Your task to perform on an android device: change the clock display to analog Image 0: 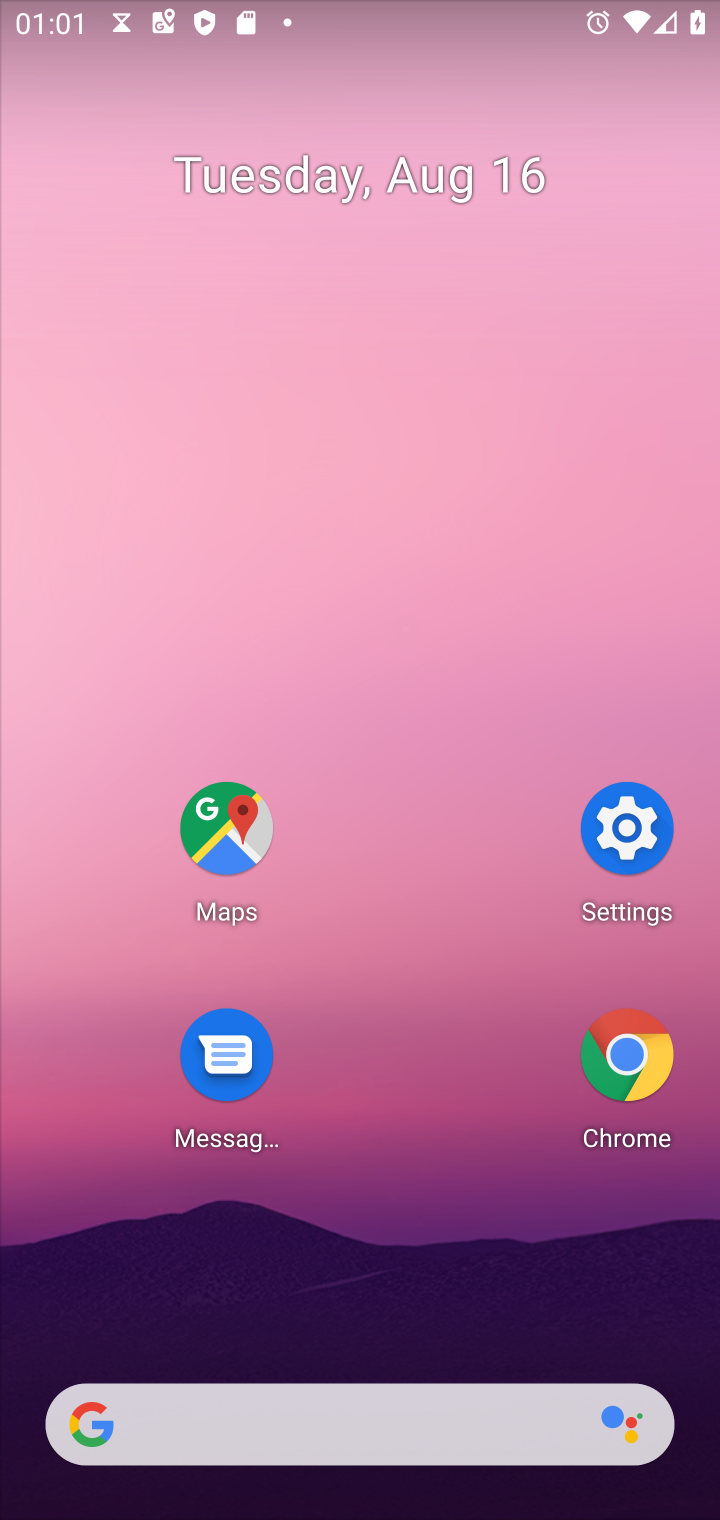
Step 0: press home button
Your task to perform on an android device: change the clock display to analog Image 1: 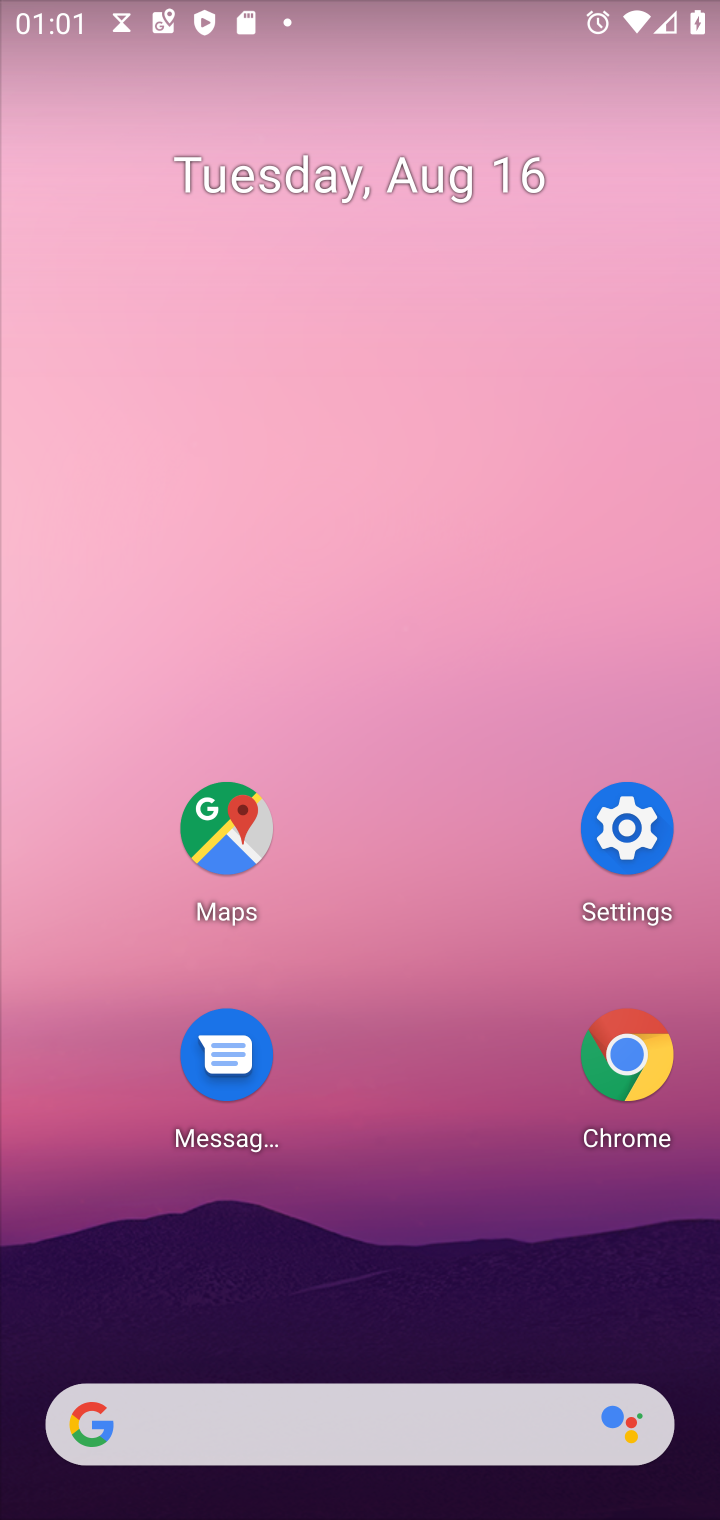
Step 1: drag from (499, 930) to (596, 84)
Your task to perform on an android device: change the clock display to analog Image 2: 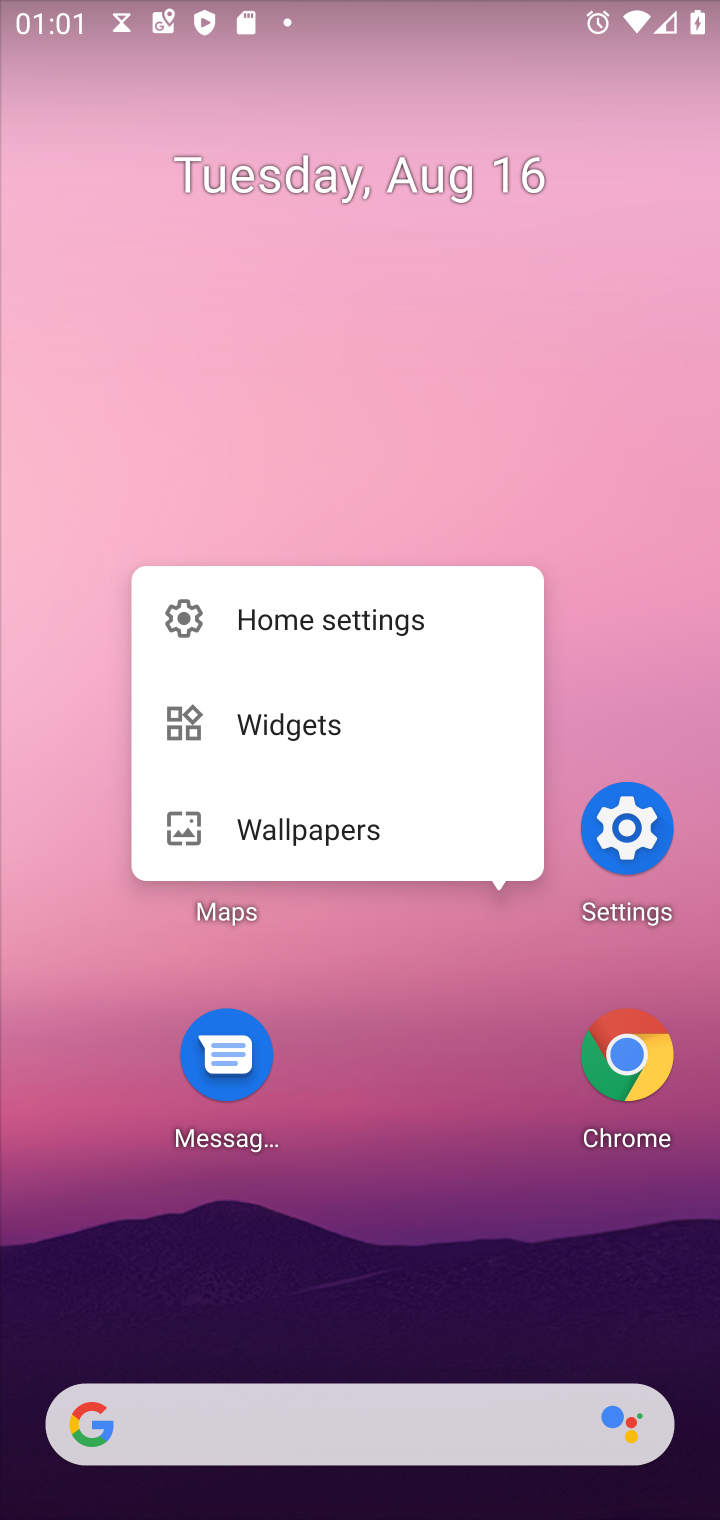
Step 2: drag from (452, 974) to (540, 268)
Your task to perform on an android device: change the clock display to analog Image 3: 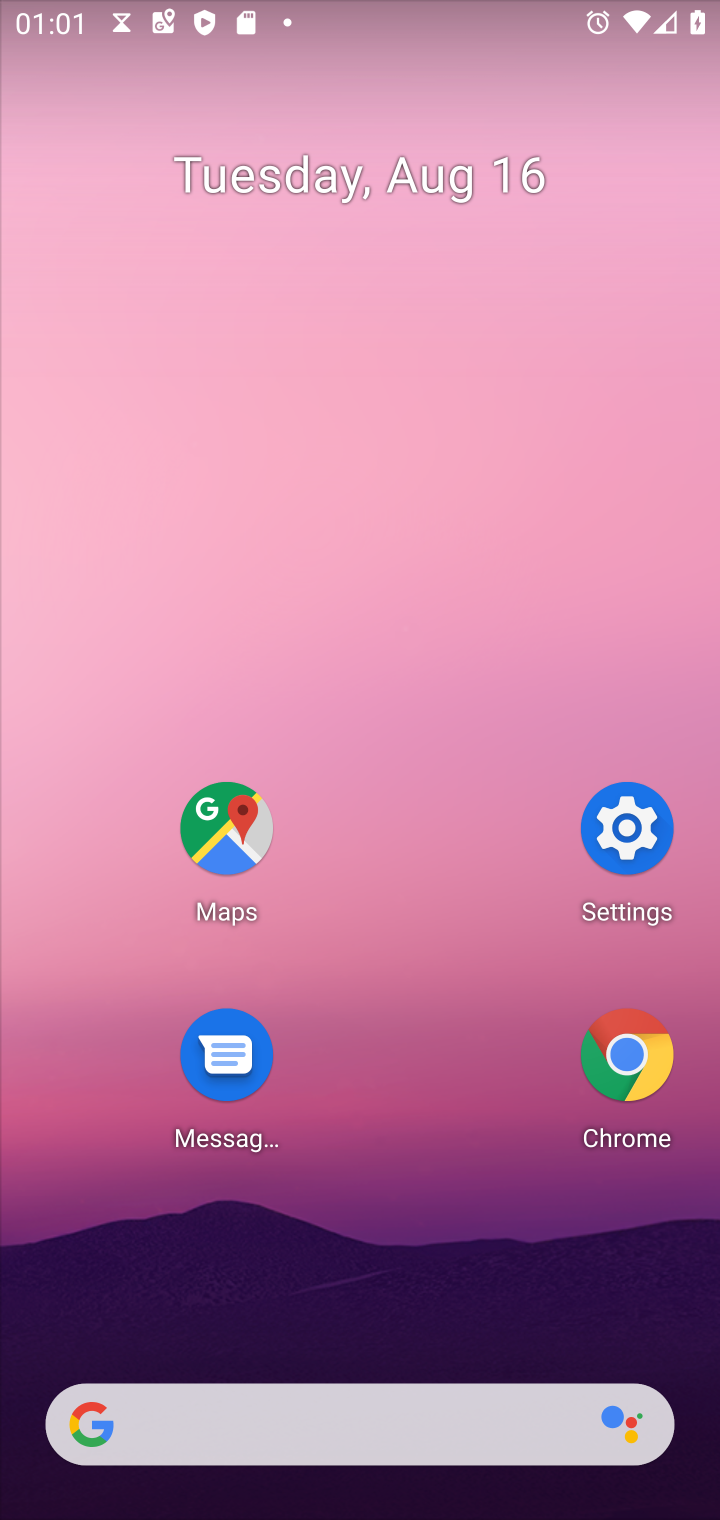
Step 3: drag from (439, 934) to (582, 165)
Your task to perform on an android device: change the clock display to analog Image 4: 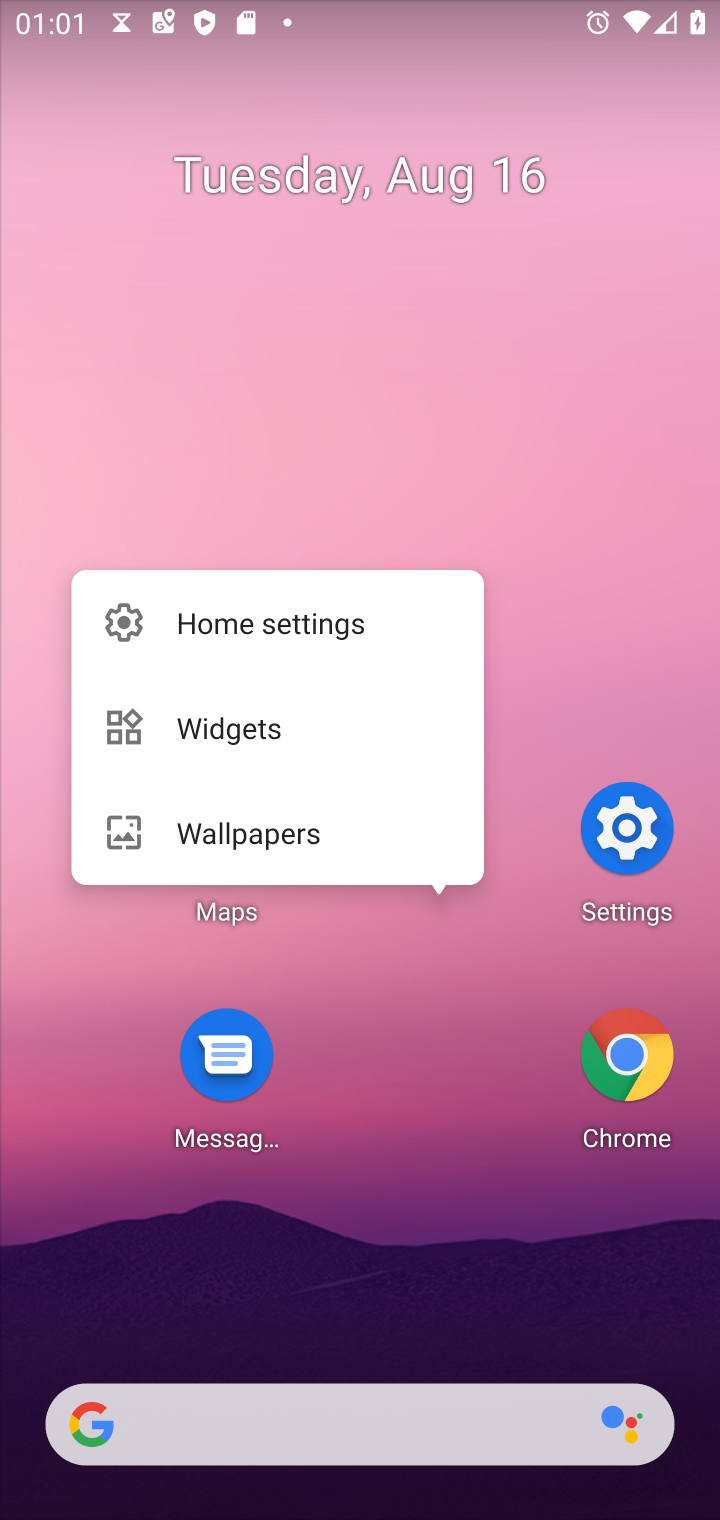
Step 4: press home button
Your task to perform on an android device: change the clock display to analog Image 5: 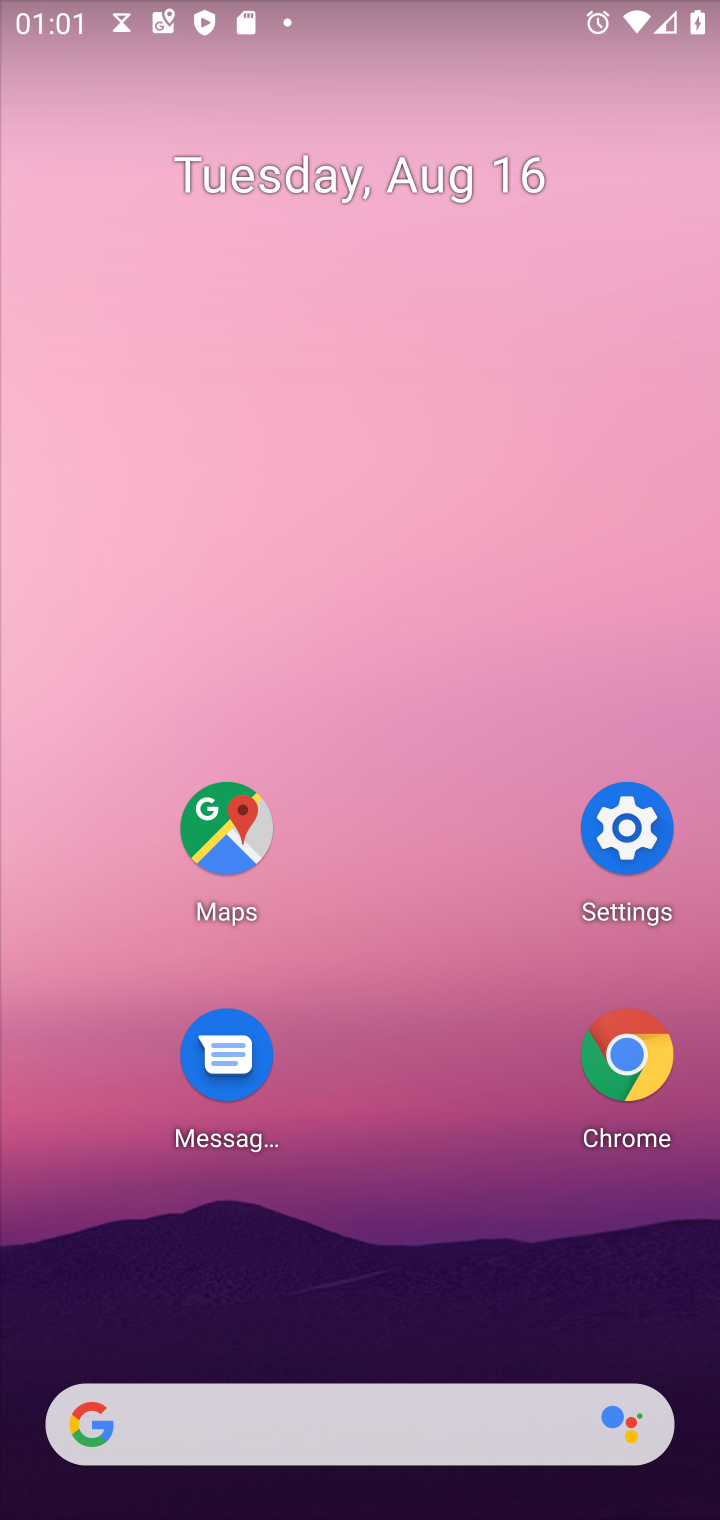
Step 5: drag from (408, 1127) to (543, 249)
Your task to perform on an android device: change the clock display to analog Image 6: 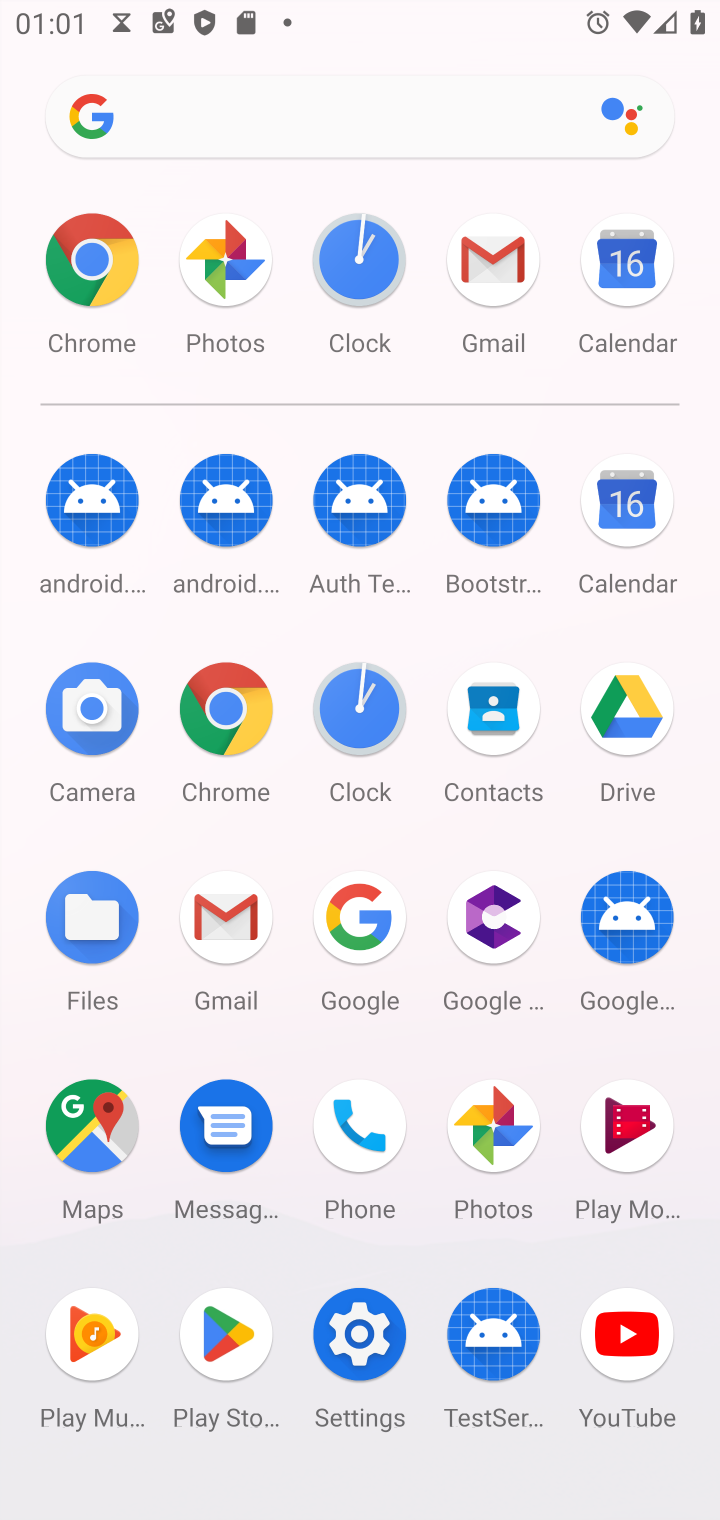
Step 6: click (366, 268)
Your task to perform on an android device: change the clock display to analog Image 7: 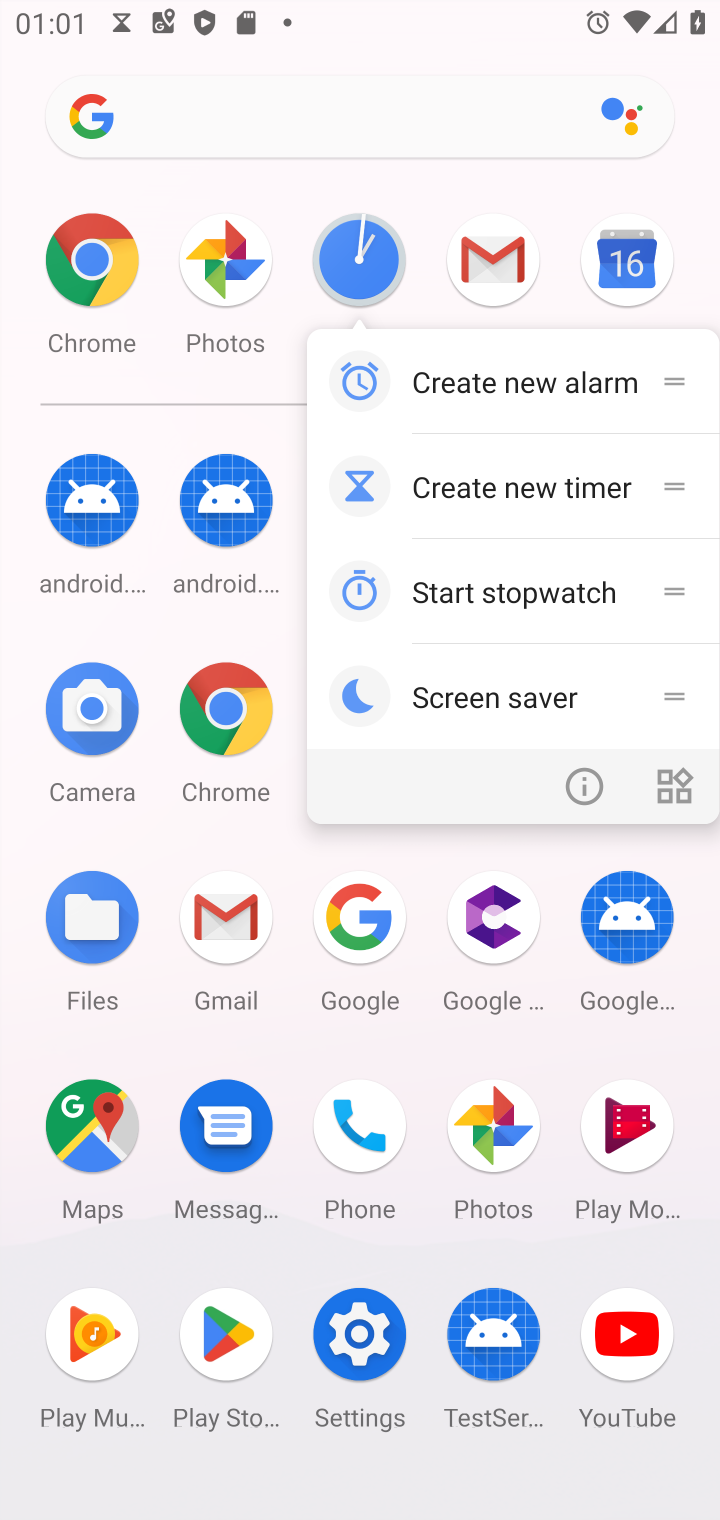
Step 7: click (359, 269)
Your task to perform on an android device: change the clock display to analog Image 8: 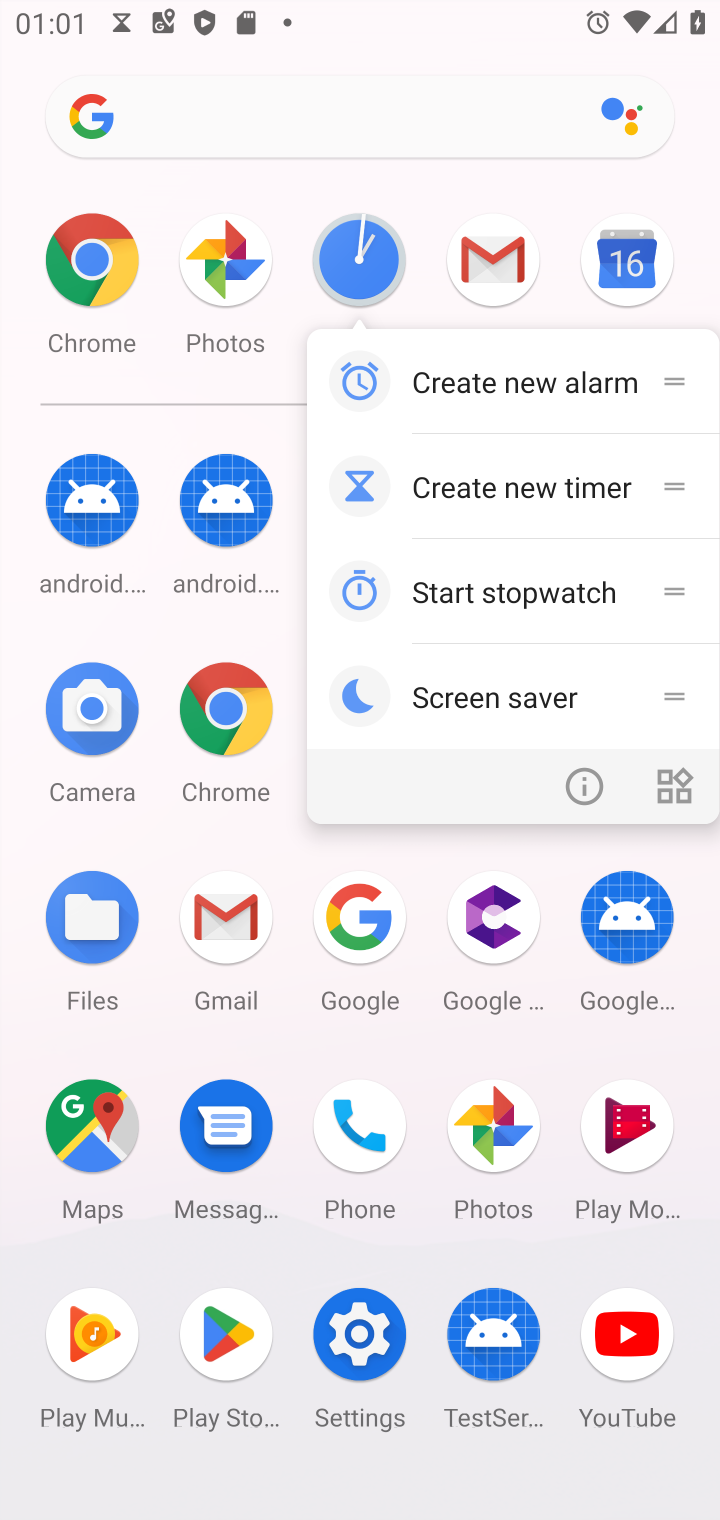
Step 8: click (344, 267)
Your task to perform on an android device: change the clock display to analog Image 9: 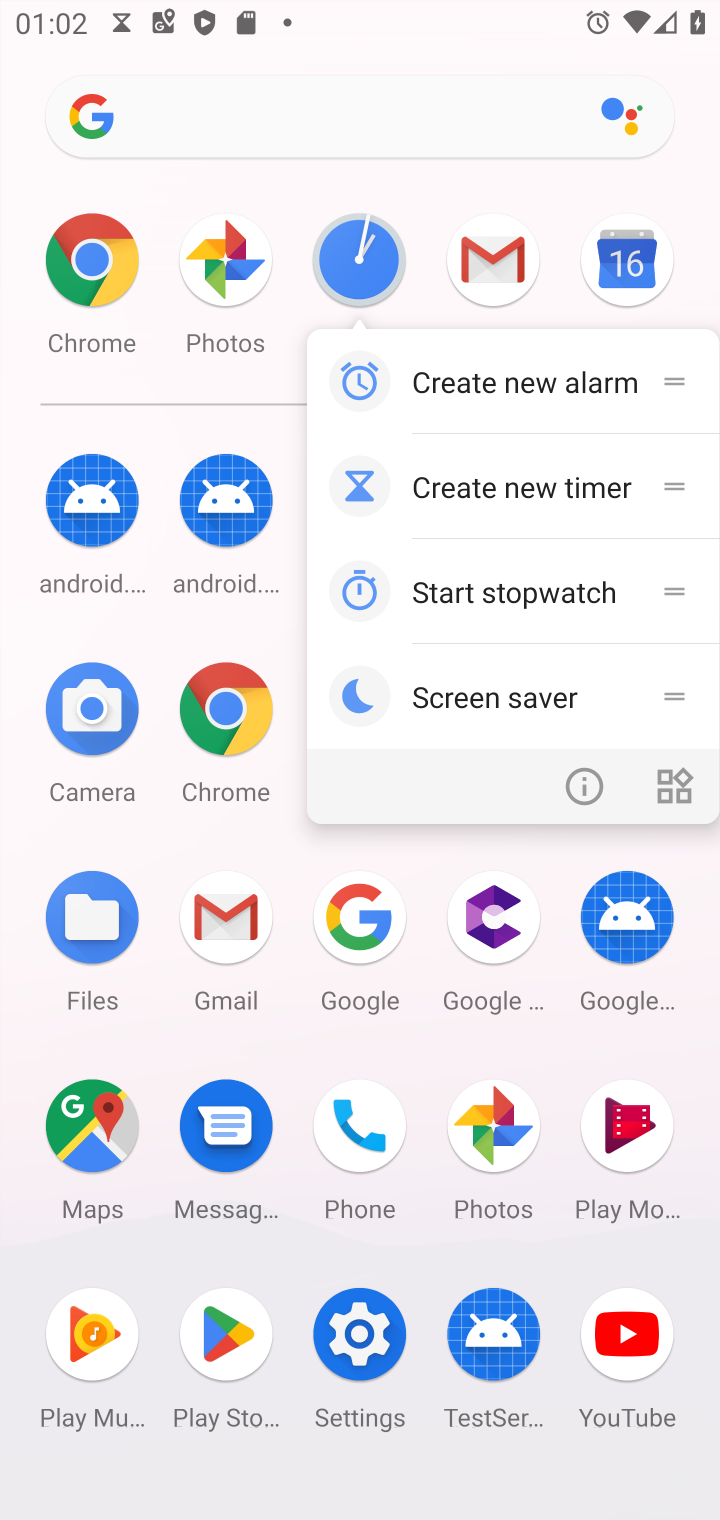
Step 9: click (344, 264)
Your task to perform on an android device: change the clock display to analog Image 10: 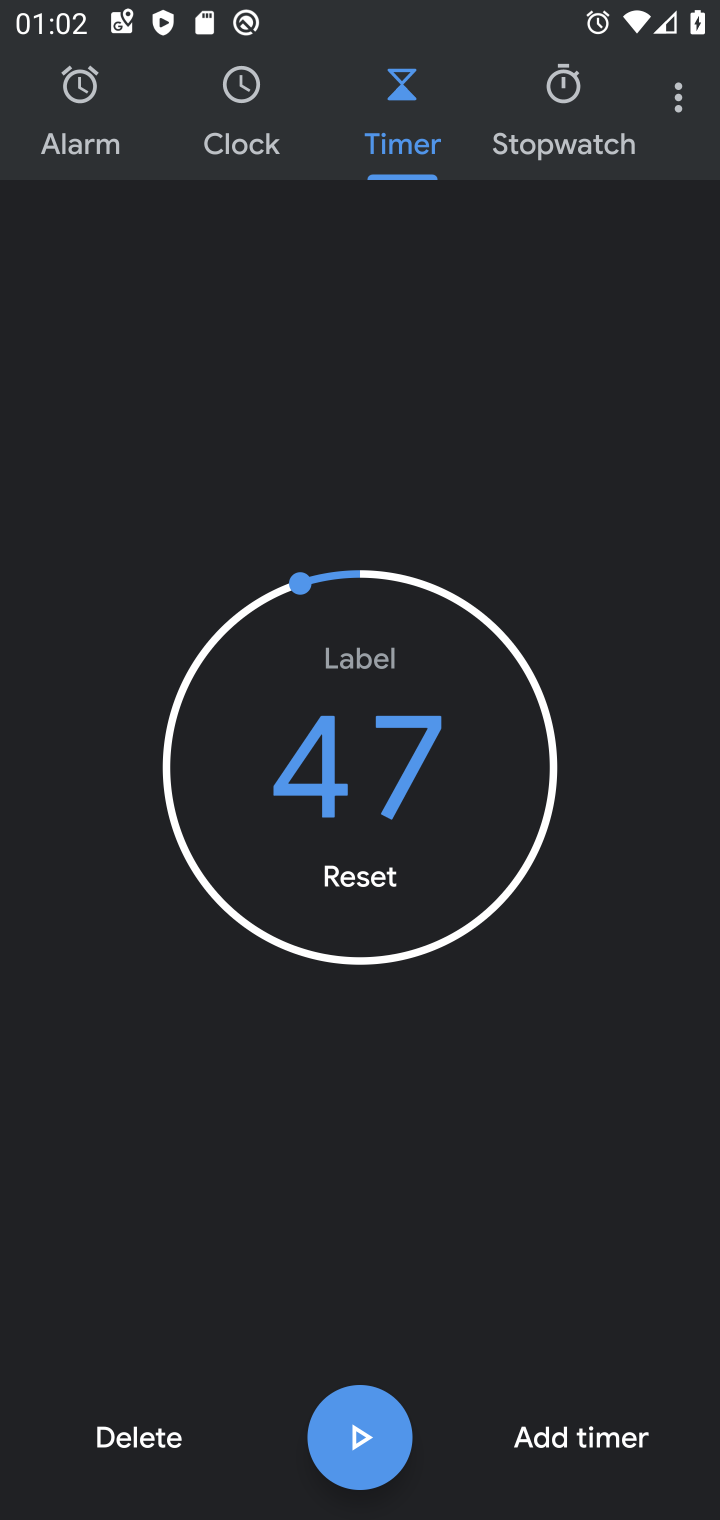
Step 10: click (76, 149)
Your task to perform on an android device: change the clock display to analog Image 11: 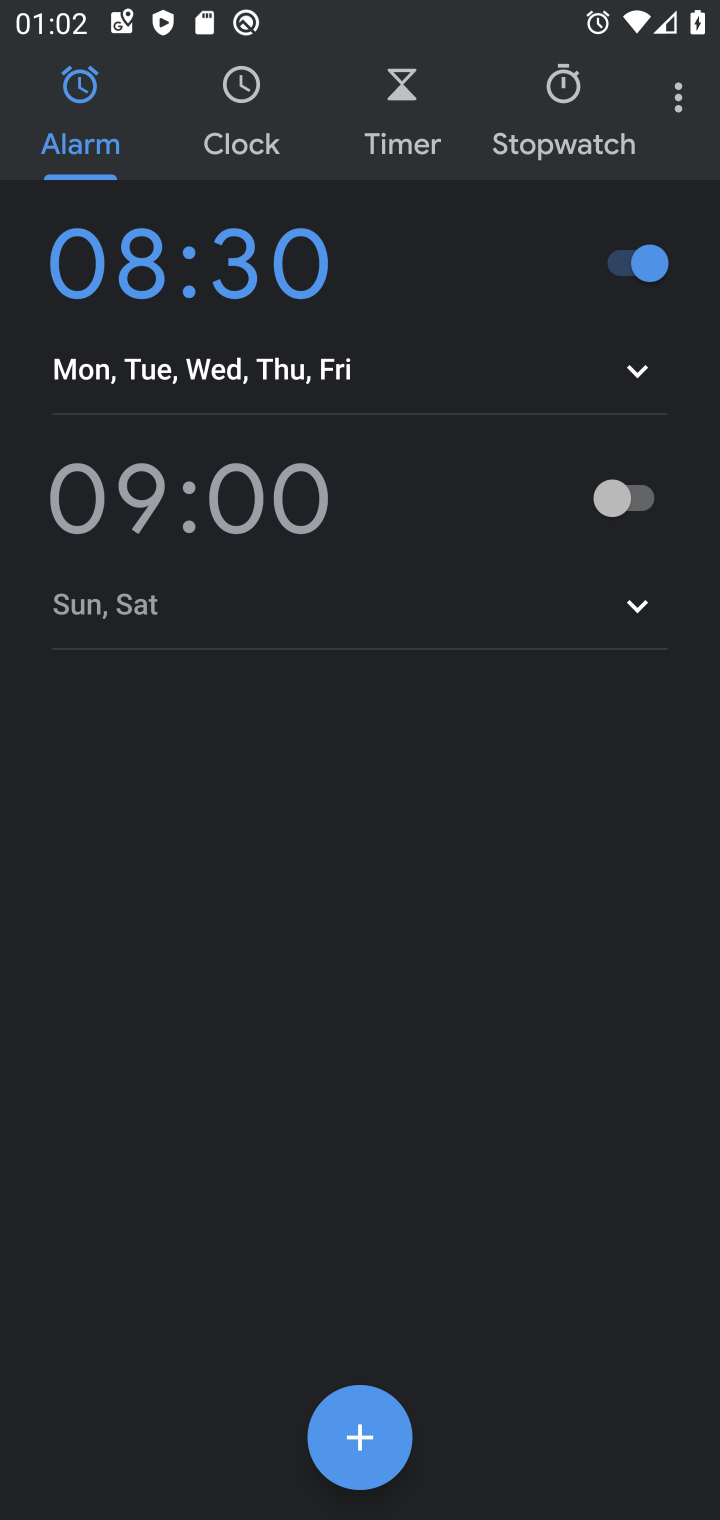
Step 11: click (676, 110)
Your task to perform on an android device: change the clock display to analog Image 12: 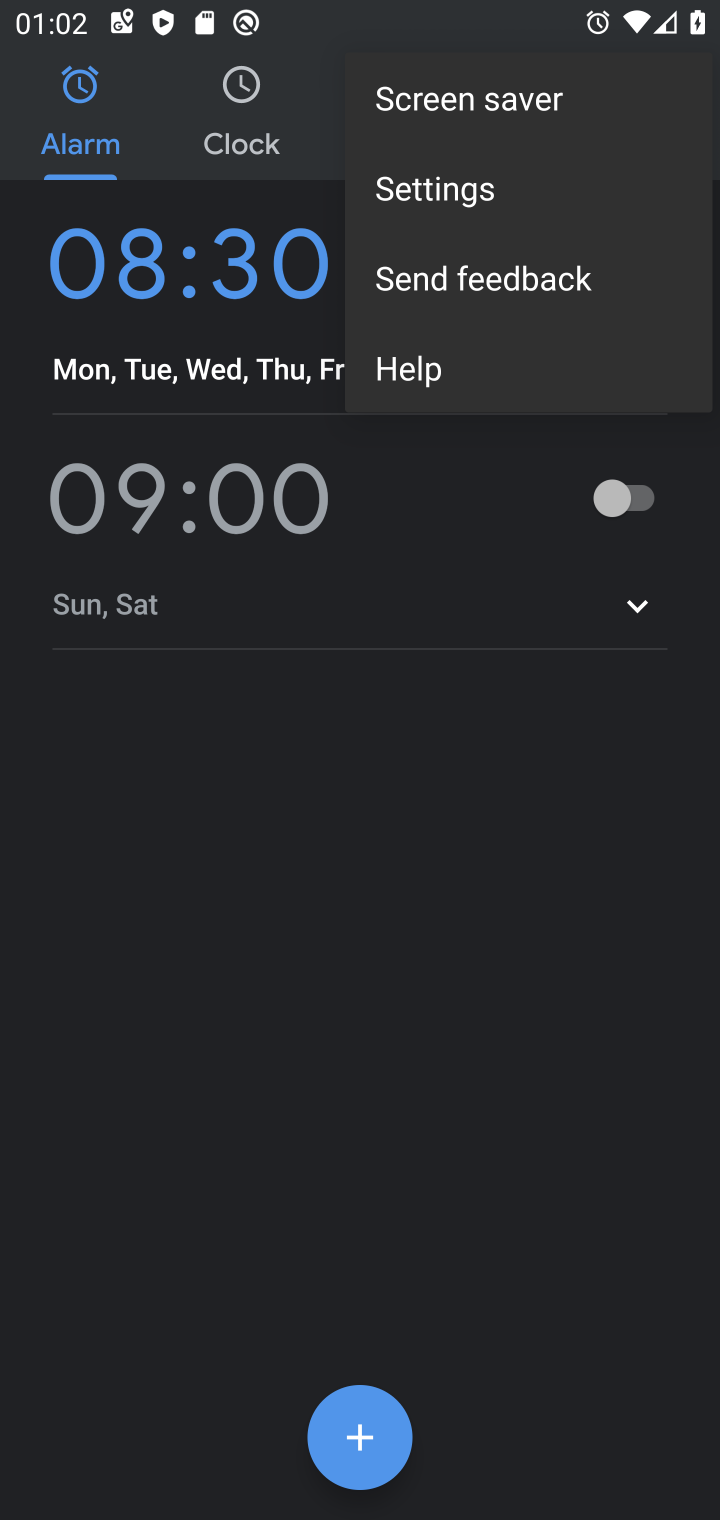
Step 12: click (451, 195)
Your task to perform on an android device: change the clock display to analog Image 13: 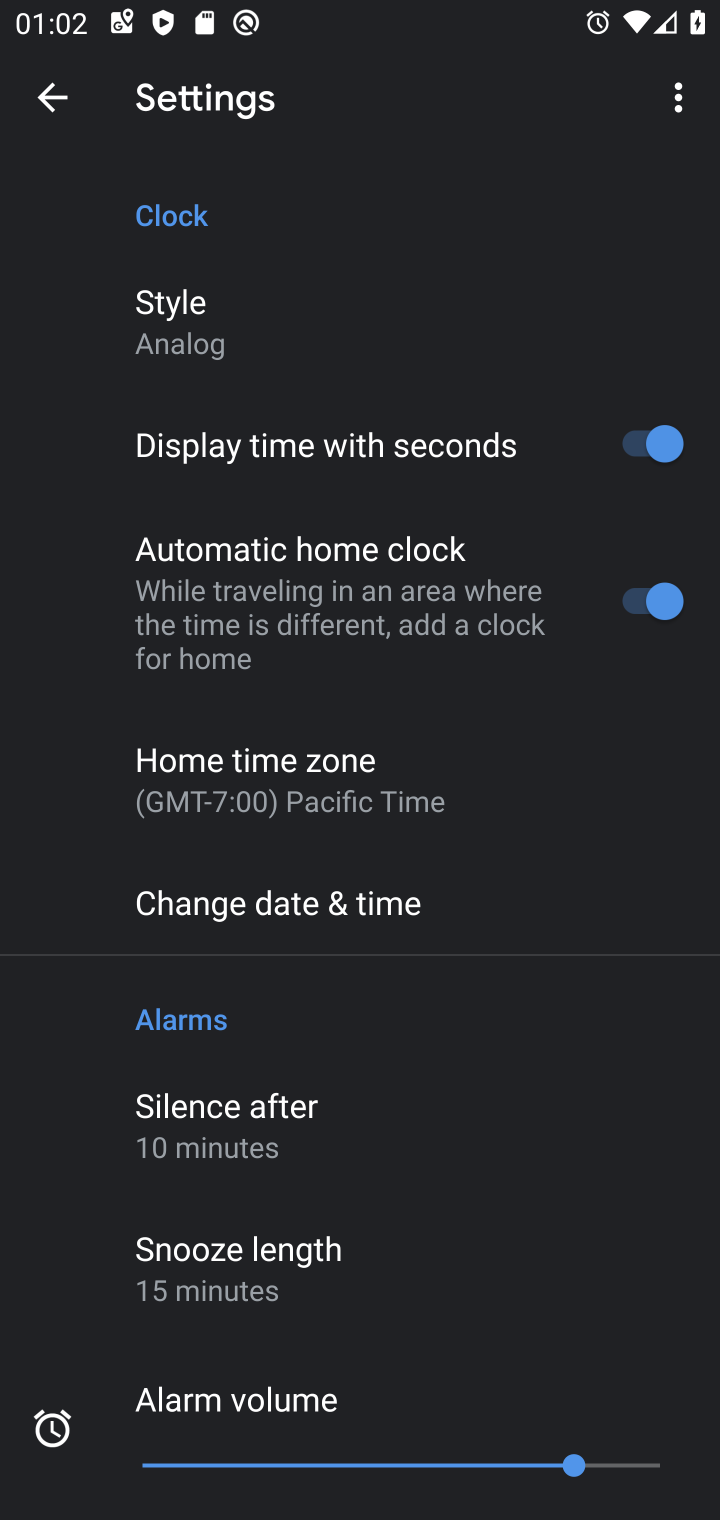
Step 13: task complete